Your task to perform on an android device: What's the weather? Image 0: 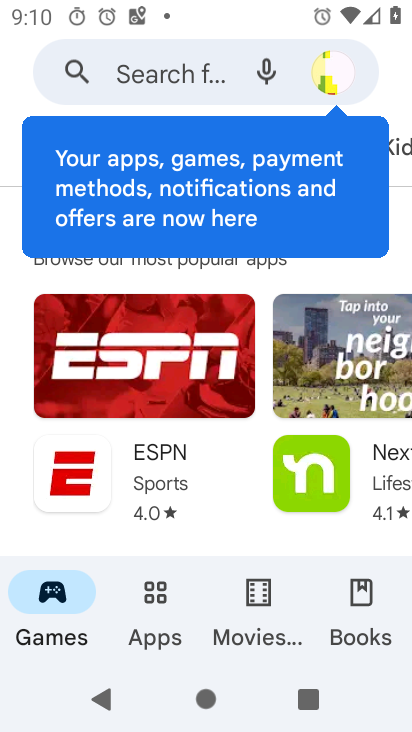
Step 0: press back button
Your task to perform on an android device: What's the weather? Image 1: 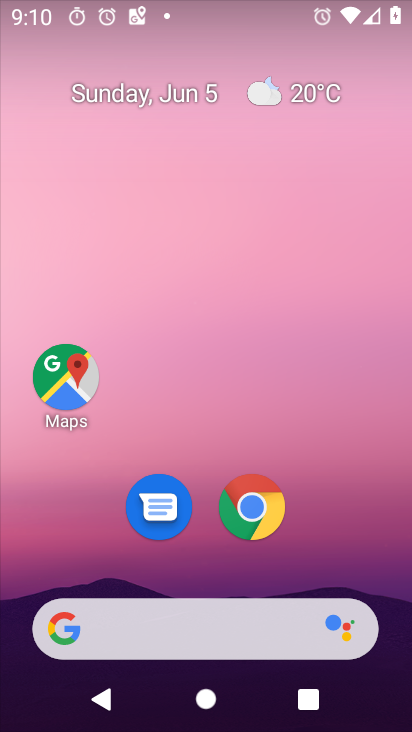
Step 1: drag from (355, 542) to (240, 31)
Your task to perform on an android device: What's the weather? Image 2: 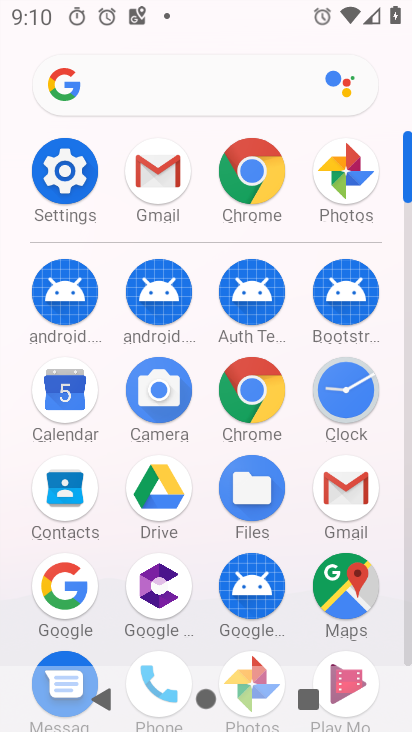
Step 2: drag from (0, 574) to (1, 295)
Your task to perform on an android device: What's the weather? Image 3: 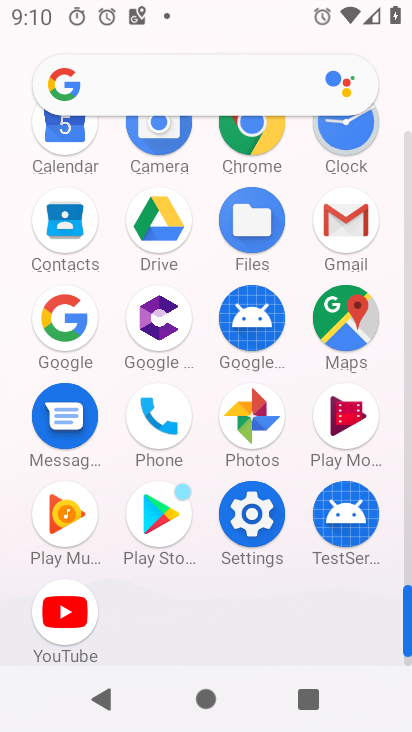
Step 3: drag from (220, 160) to (198, 352)
Your task to perform on an android device: What's the weather? Image 4: 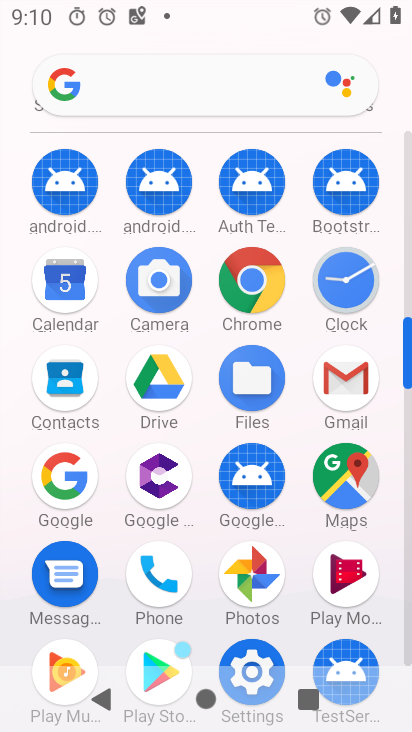
Step 4: click (253, 275)
Your task to perform on an android device: What's the weather? Image 5: 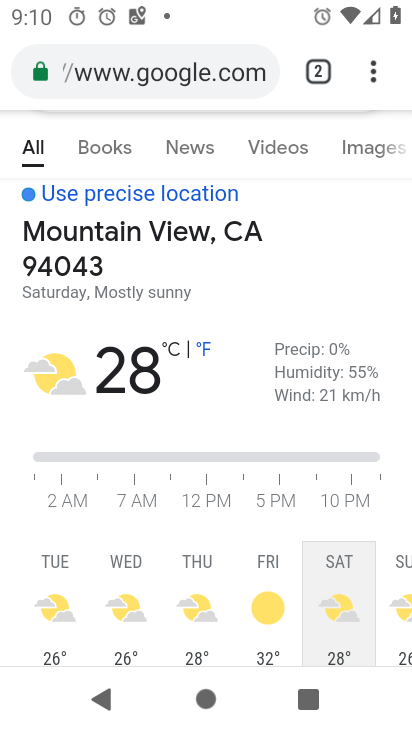
Step 5: click (154, 68)
Your task to perform on an android device: What's the weather? Image 6: 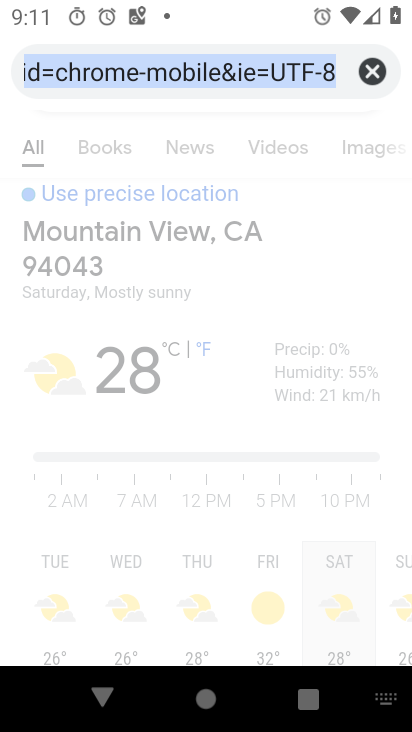
Step 6: click (375, 67)
Your task to perform on an android device: What's the weather? Image 7: 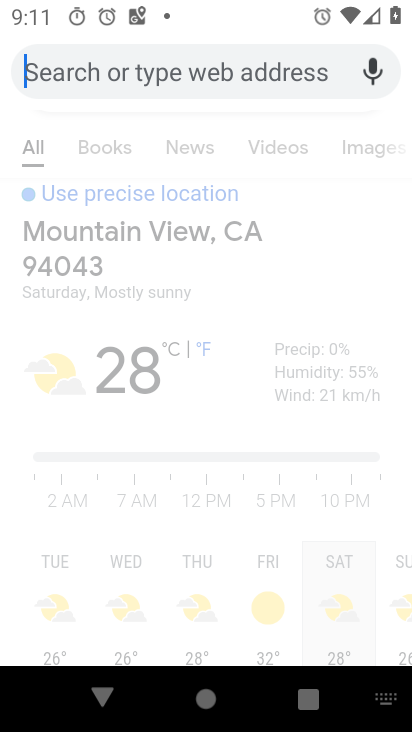
Step 7: type "What's the weather?"
Your task to perform on an android device: What's the weather? Image 8: 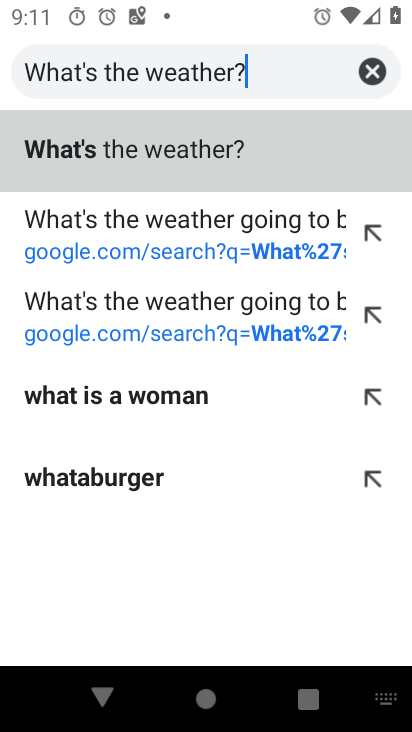
Step 8: type ""
Your task to perform on an android device: What's the weather? Image 9: 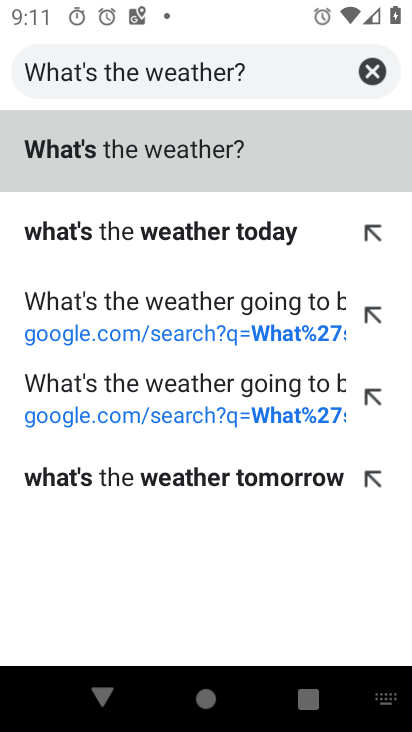
Step 9: click (173, 168)
Your task to perform on an android device: What's the weather? Image 10: 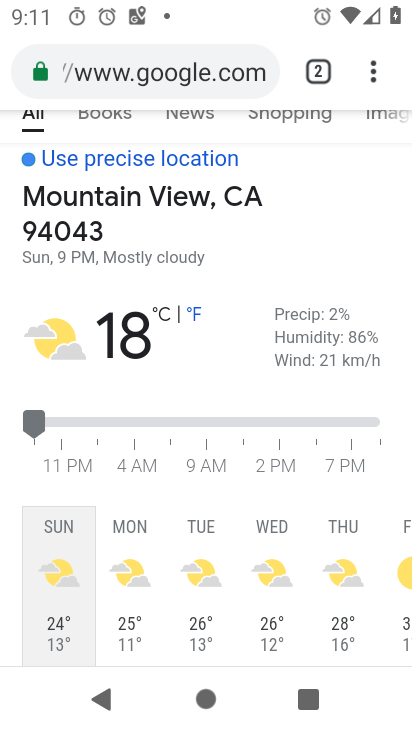
Step 10: task complete